Your task to perform on an android device: allow notifications from all sites in the chrome app Image 0: 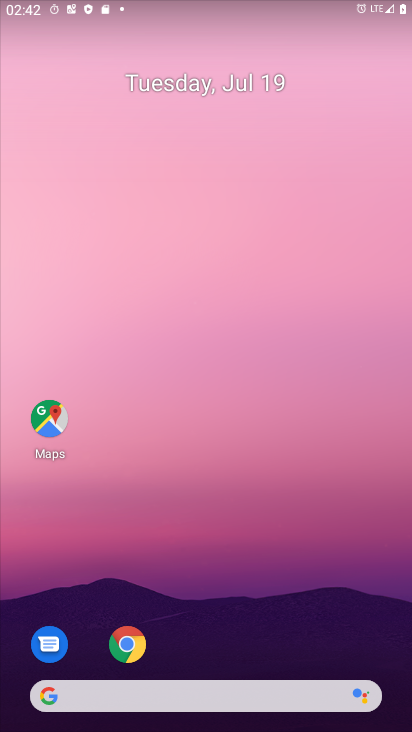
Step 0: click (121, 642)
Your task to perform on an android device: allow notifications from all sites in the chrome app Image 1: 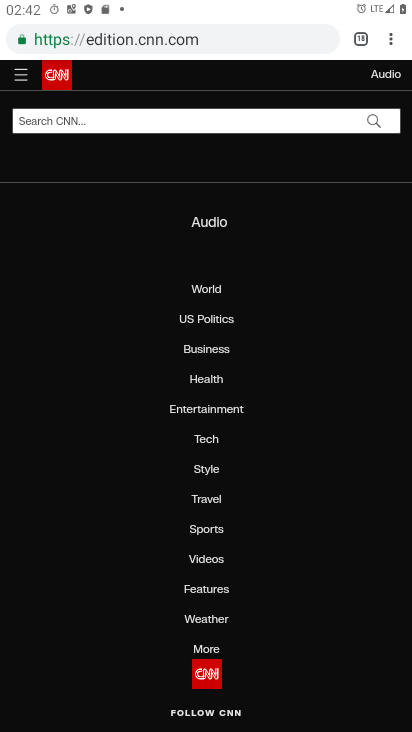
Step 1: click (389, 40)
Your task to perform on an android device: allow notifications from all sites in the chrome app Image 2: 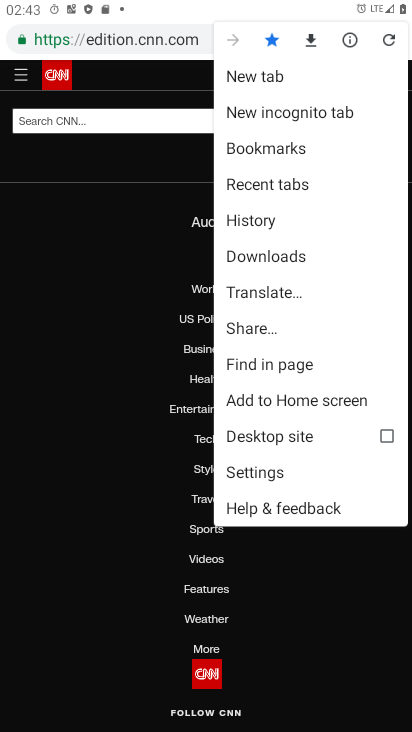
Step 2: click (261, 465)
Your task to perform on an android device: allow notifications from all sites in the chrome app Image 3: 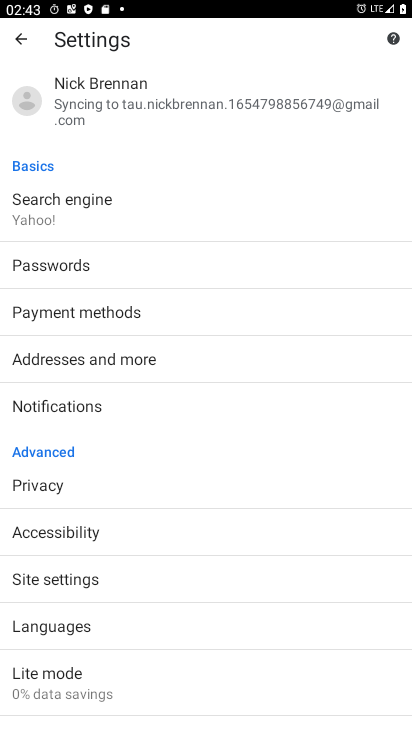
Step 3: click (71, 578)
Your task to perform on an android device: allow notifications from all sites in the chrome app Image 4: 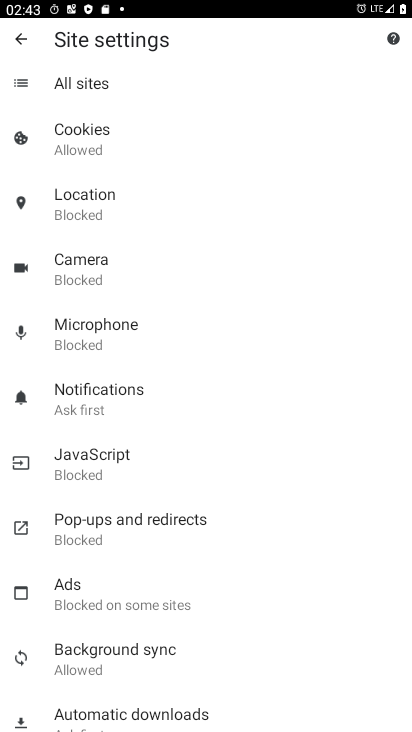
Step 4: click (76, 390)
Your task to perform on an android device: allow notifications from all sites in the chrome app Image 5: 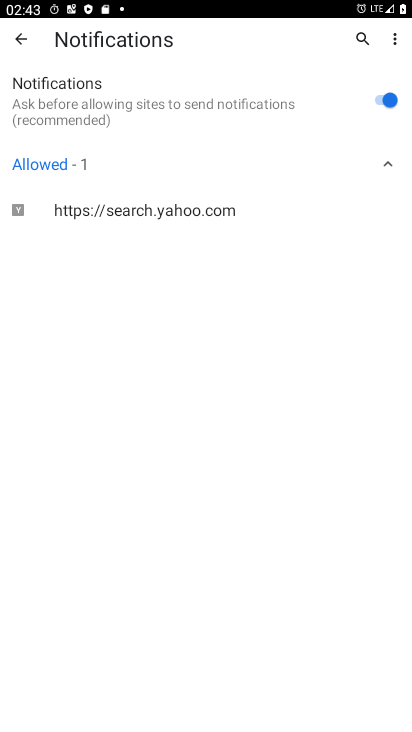
Step 5: task complete